Your task to perform on an android device: What's the weather going to be tomorrow? Image 0: 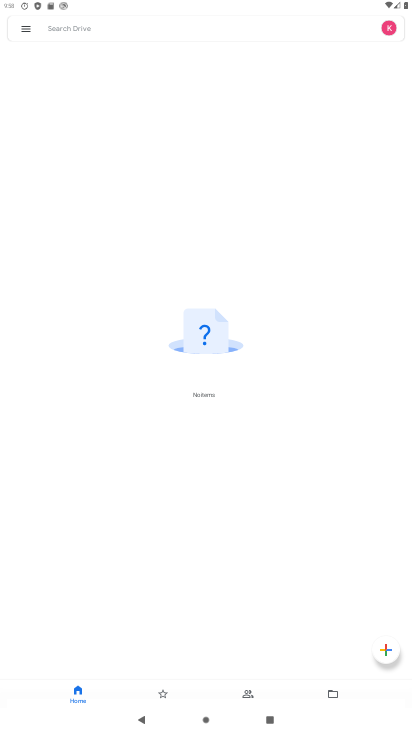
Step 0: press home button
Your task to perform on an android device: What's the weather going to be tomorrow? Image 1: 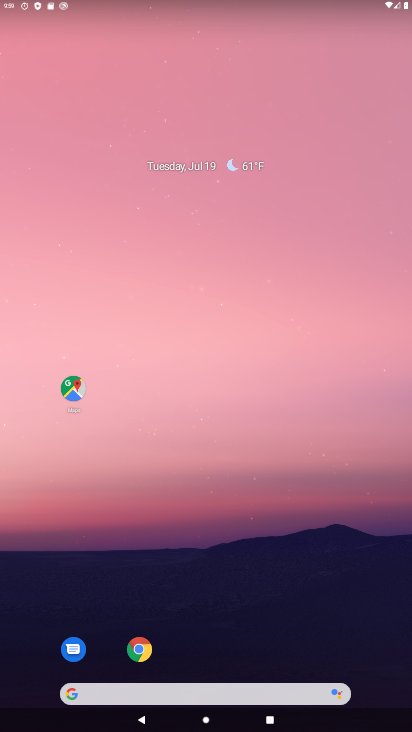
Step 1: click (255, 168)
Your task to perform on an android device: What's the weather going to be tomorrow? Image 2: 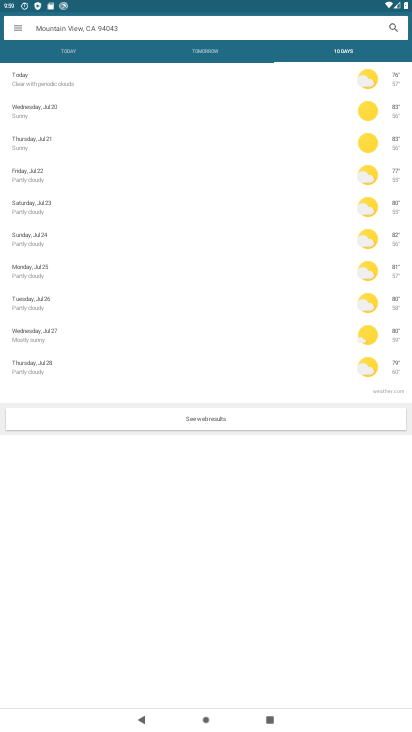
Step 2: click (204, 56)
Your task to perform on an android device: What's the weather going to be tomorrow? Image 3: 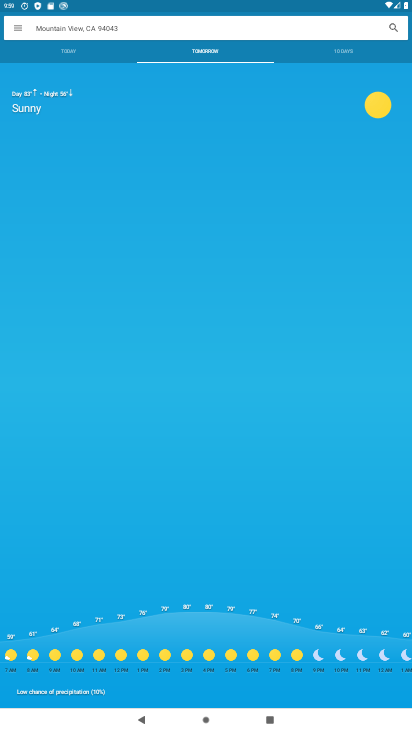
Step 3: task complete